Your task to perform on an android device: turn on data saver in the chrome app Image 0: 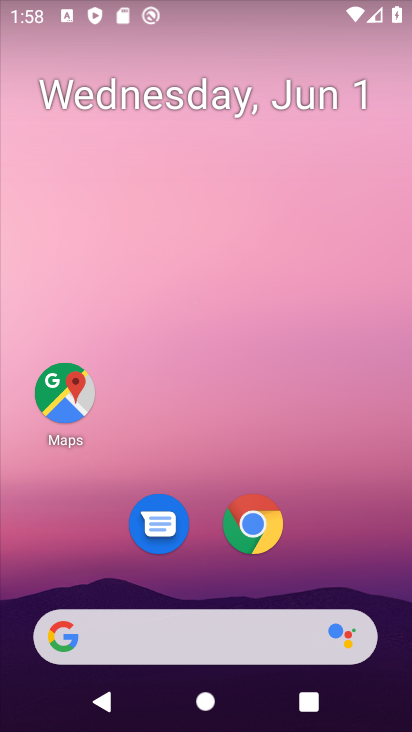
Step 0: click (263, 522)
Your task to perform on an android device: turn on data saver in the chrome app Image 1: 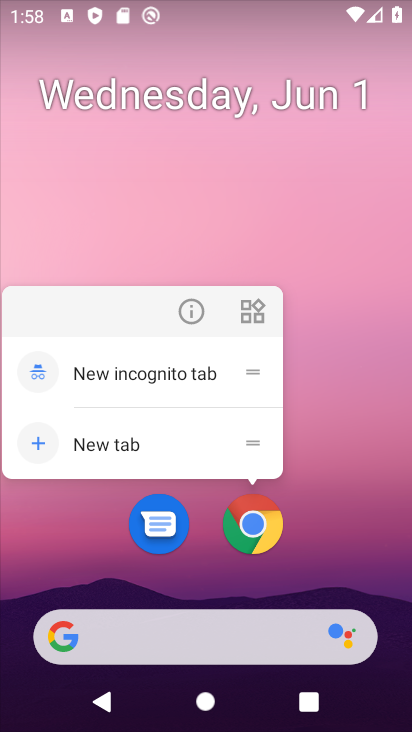
Step 1: click (263, 522)
Your task to perform on an android device: turn on data saver in the chrome app Image 2: 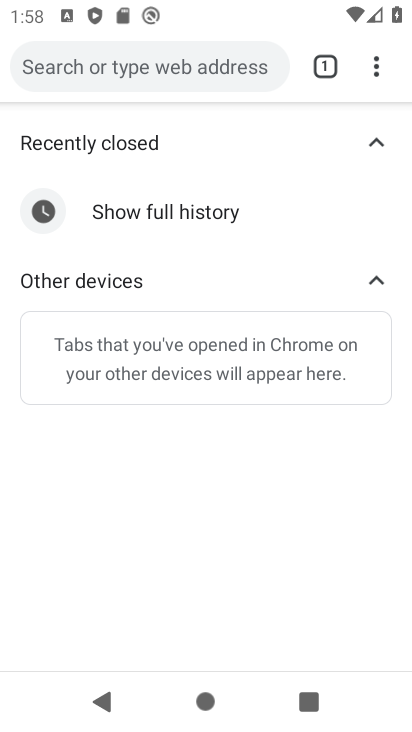
Step 2: click (375, 67)
Your task to perform on an android device: turn on data saver in the chrome app Image 3: 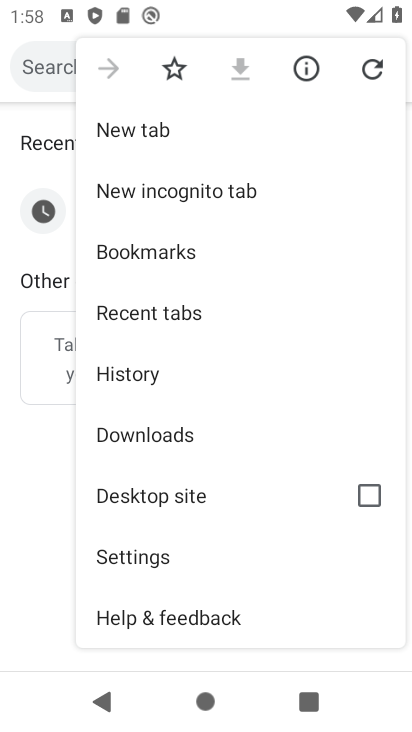
Step 3: click (197, 558)
Your task to perform on an android device: turn on data saver in the chrome app Image 4: 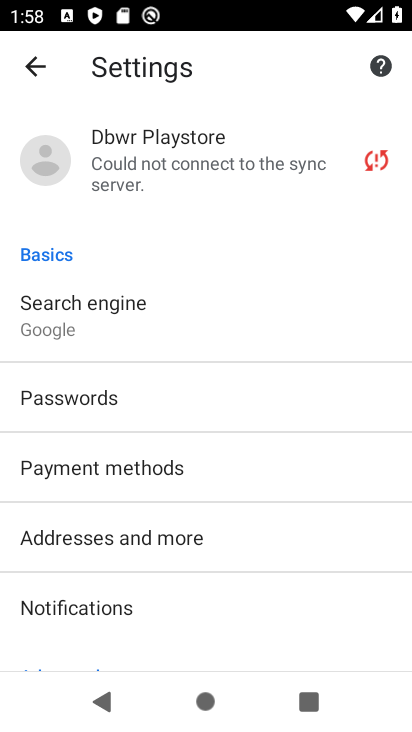
Step 4: drag from (260, 594) to (348, 116)
Your task to perform on an android device: turn on data saver in the chrome app Image 5: 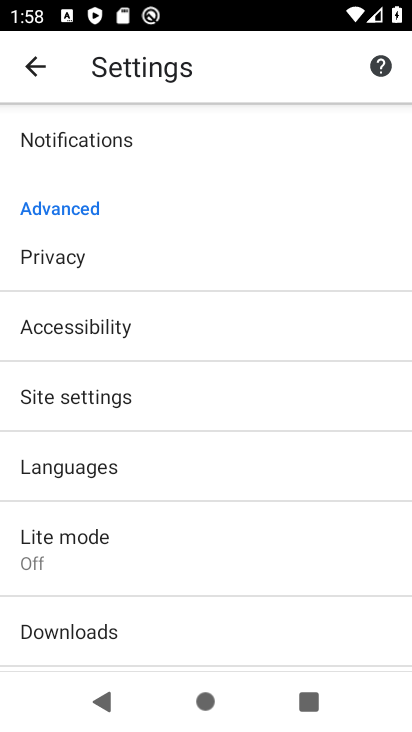
Step 5: click (144, 546)
Your task to perform on an android device: turn on data saver in the chrome app Image 6: 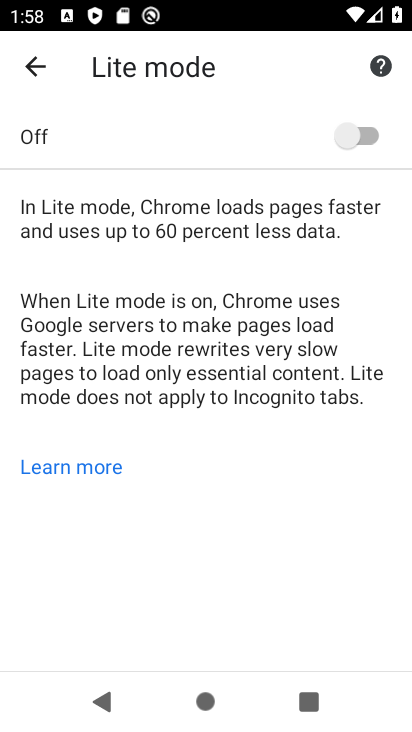
Step 6: click (357, 130)
Your task to perform on an android device: turn on data saver in the chrome app Image 7: 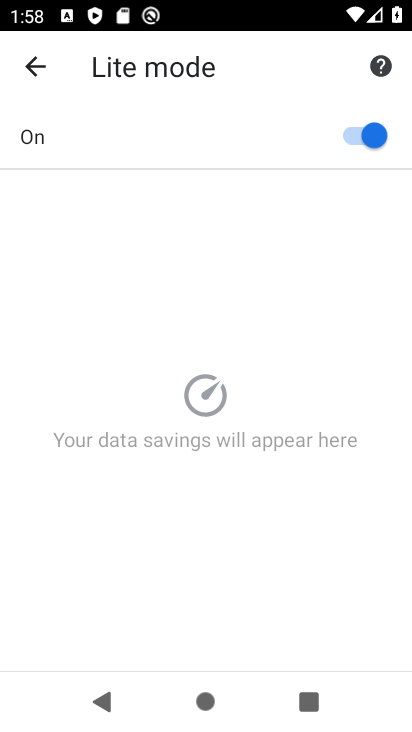
Step 7: task complete